Your task to perform on an android device: Open privacy settings Image 0: 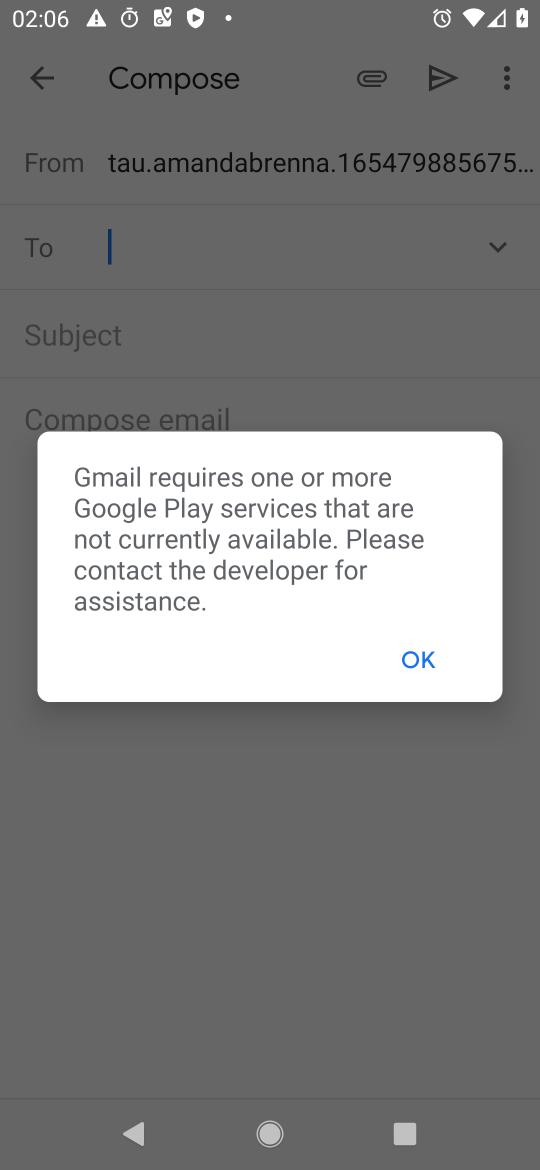
Step 0: press home button
Your task to perform on an android device: Open privacy settings Image 1: 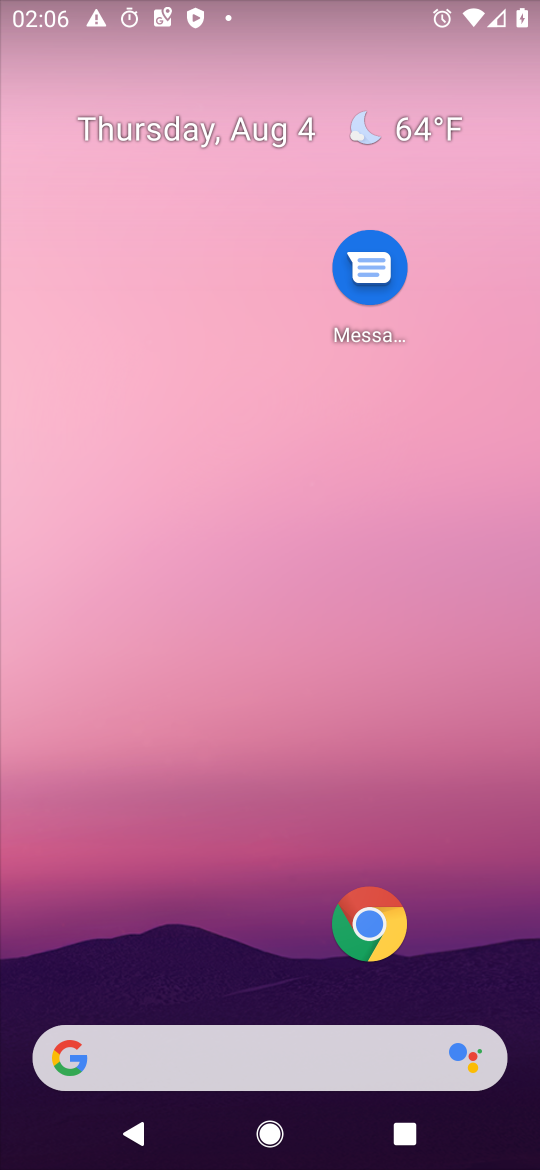
Step 1: drag from (79, 1030) to (352, 317)
Your task to perform on an android device: Open privacy settings Image 2: 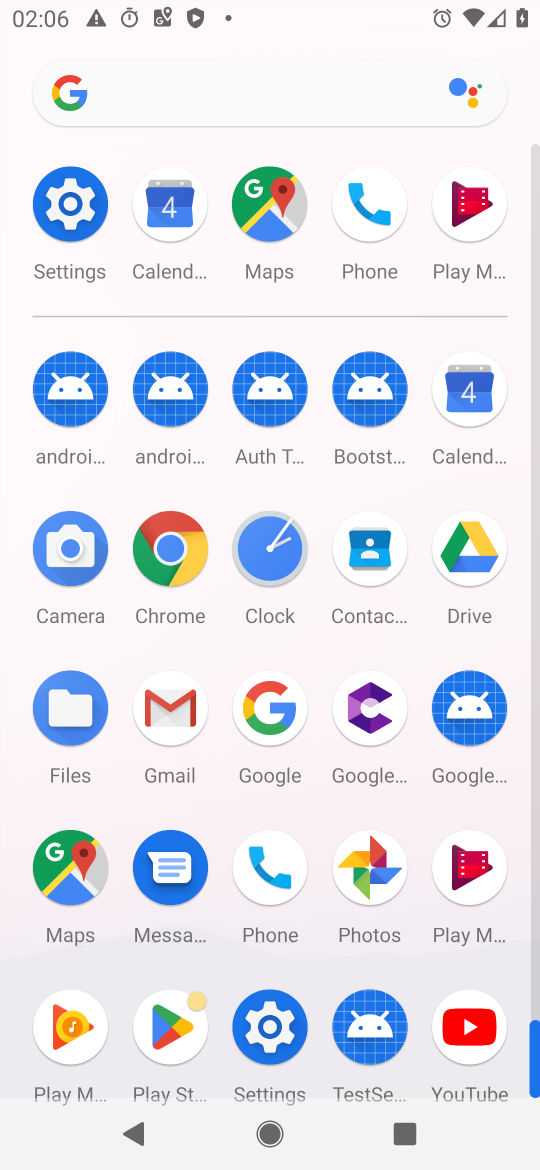
Step 2: click (292, 1032)
Your task to perform on an android device: Open privacy settings Image 3: 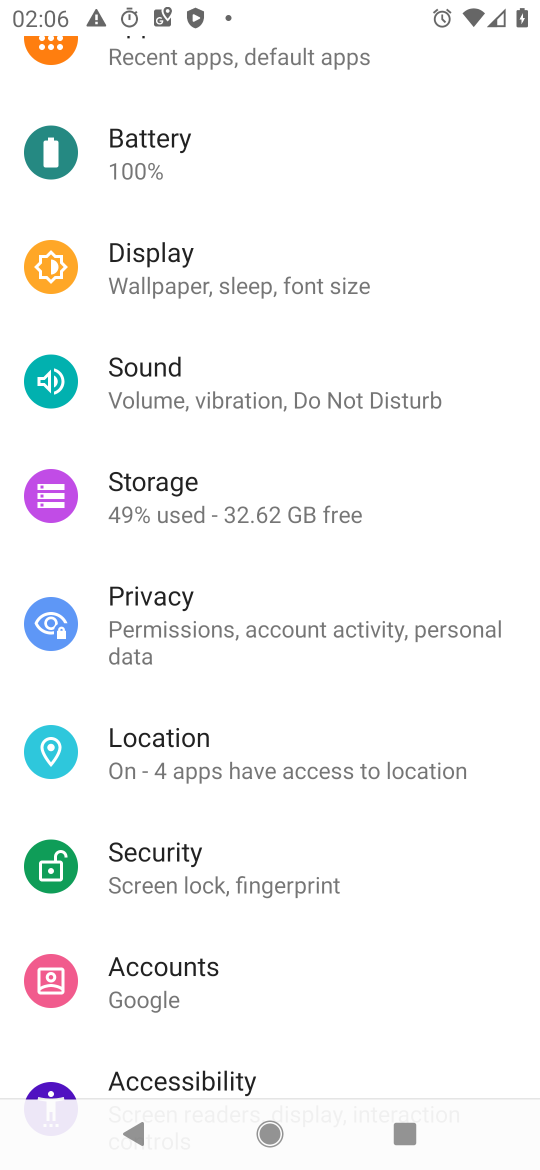
Step 3: click (239, 623)
Your task to perform on an android device: Open privacy settings Image 4: 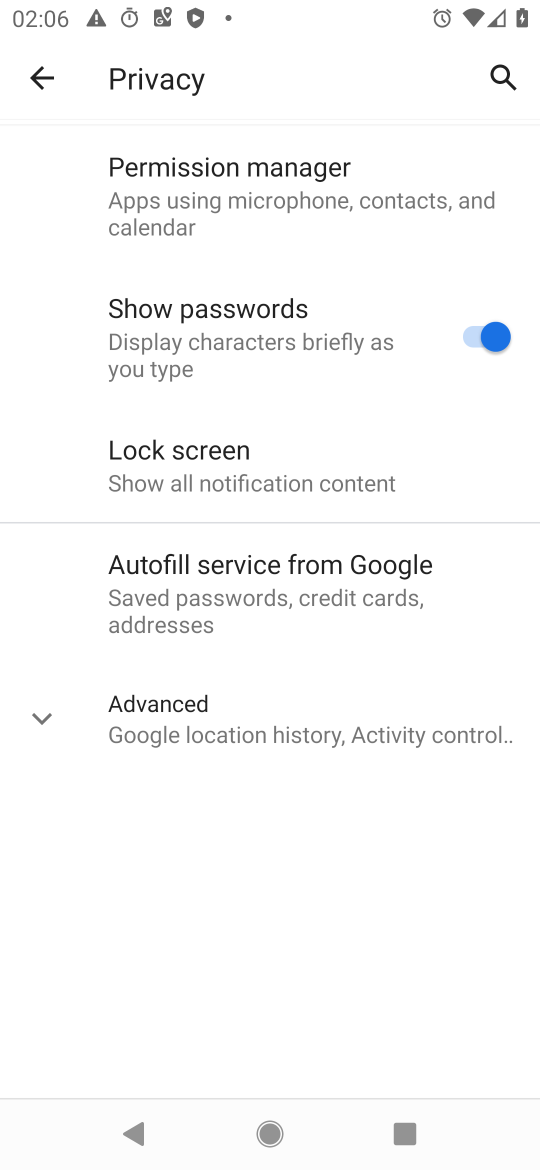
Step 4: task complete